Your task to perform on an android device: choose inbox layout in the gmail app Image 0: 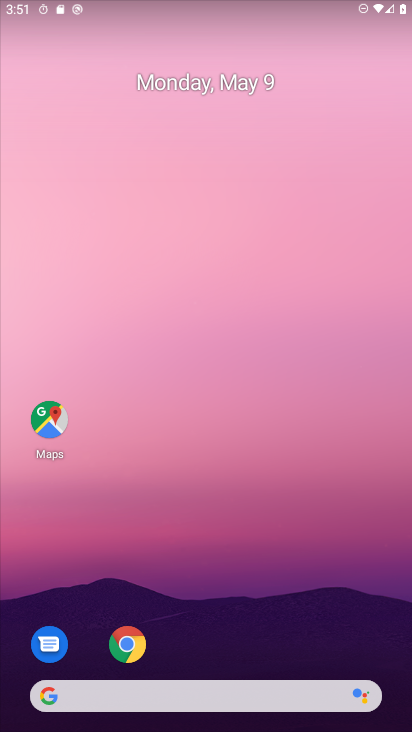
Step 0: drag from (203, 638) to (262, 35)
Your task to perform on an android device: choose inbox layout in the gmail app Image 1: 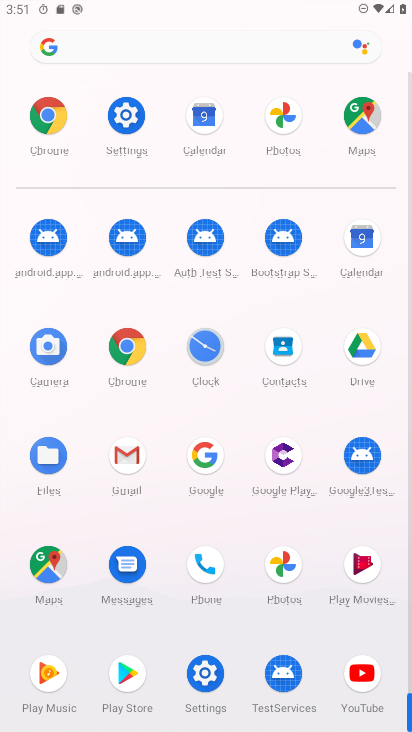
Step 1: click (113, 500)
Your task to perform on an android device: choose inbox layout in the gmail app Image 2: 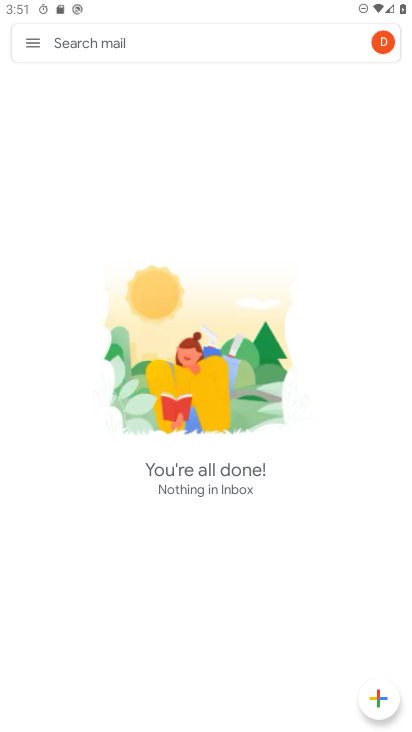
Step 2: click (43, 47)
Your task to perform on an android device: choose inbox layout in the gmail app Image 3: 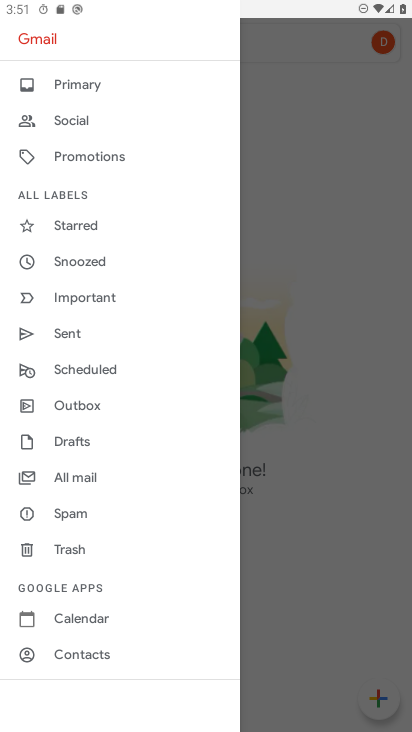
Step 3: drag from (109, 566) to (59, 80)
Your task to perform on an android device: choose inbox layout in the gmail app Image 4: 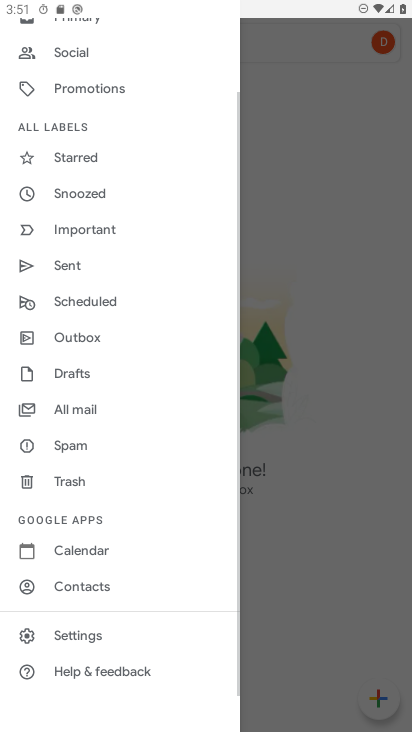
Step 4: click (76, 632)
Your task to perform on an android device: choose inbox layout in the gmail app Image 5: 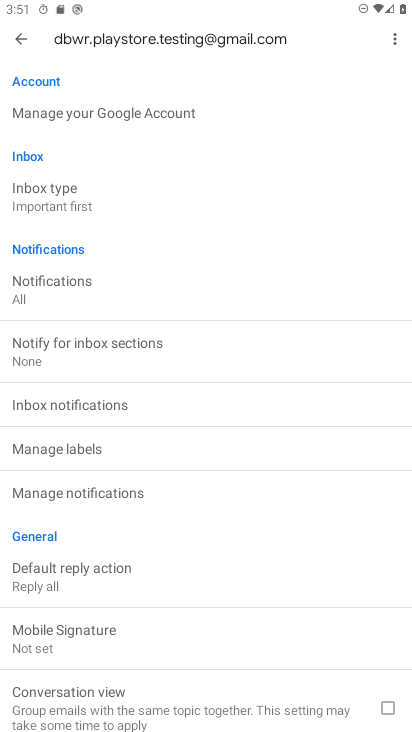
Step 5: click (61, 197)
Your task to perform on an android device: choose inbox layout in the gmail app Image 6: 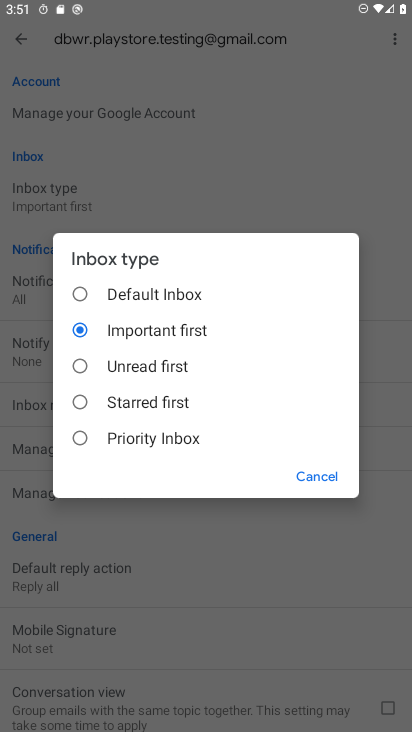
Step 6: click (90, 292)
Your task to perform on an android device: choose inbox layout in the gmail app Image 7: 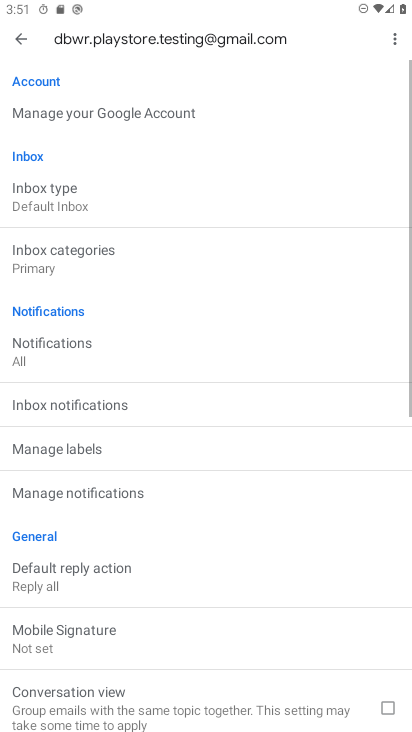
Step 7: task complete